Your task to perform on an android device: check google app version Image 0: 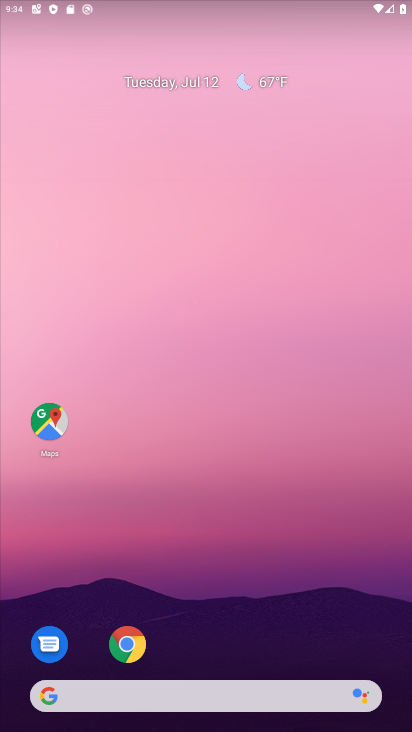
Step 0: drag from (191, 623) to (323, 155)
Your task to perform on an android device: check google app version Image 1: 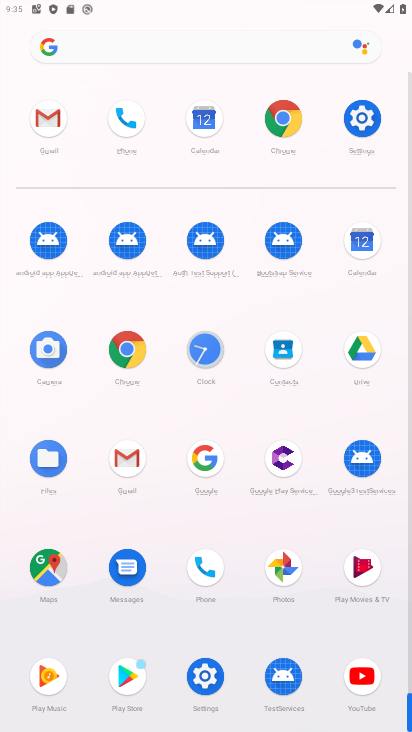
Step 1: click (209, 465)
Your task to perform on an android device: check google app version Image 2: 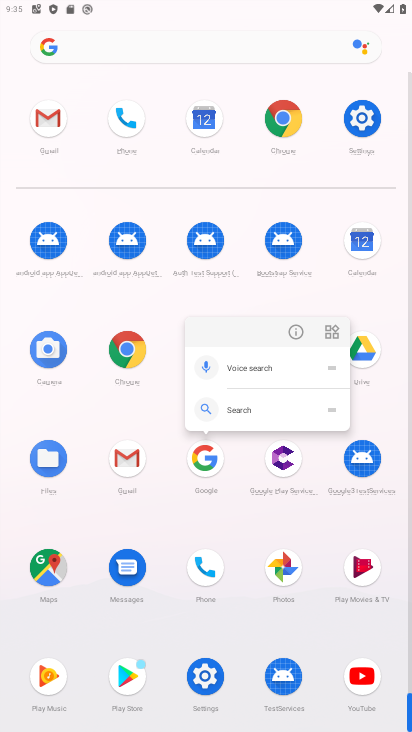
Step 2: click (295, 333)
Your task to perform on an android device: check google app version Image 3: 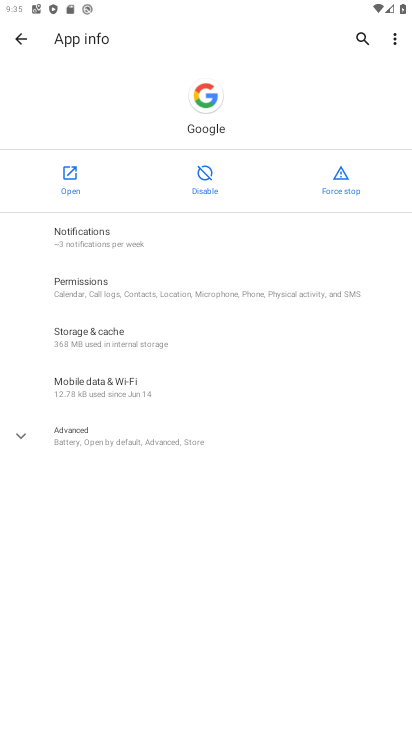
Step 3: click (72, 183)
Your task to perform on an android device: check google app version Image 4: 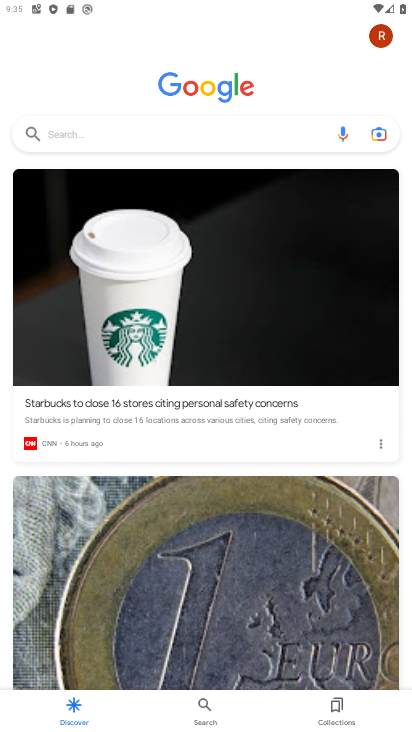
Step 4: drag from (215, 494) to (229, 205)
Your task to perform on an android device: check google app version Image 5: 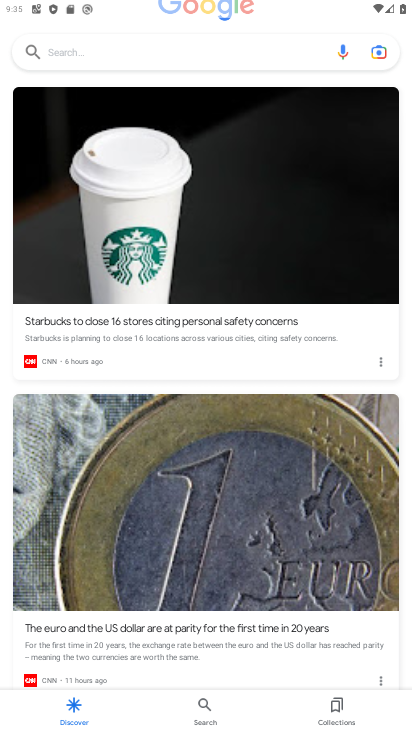
Step 5: drag from (239, 173) to (235, 543)
Your task to perform on an android device: check google app version Image 6: 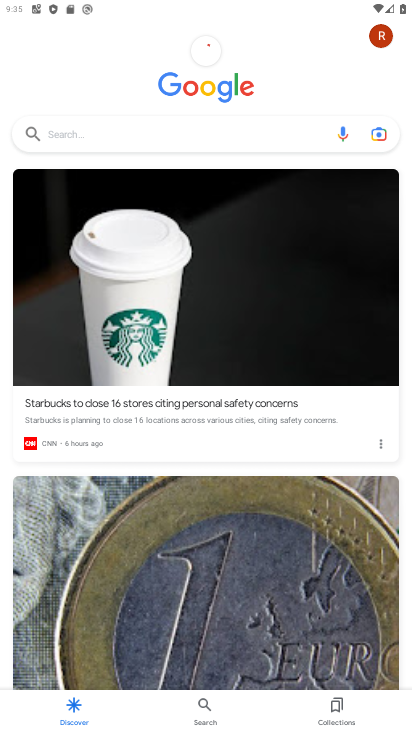
Step 6: drag from (241, 550) to (262, 314)
Your task to perform on an android device: check google app version Image 7: 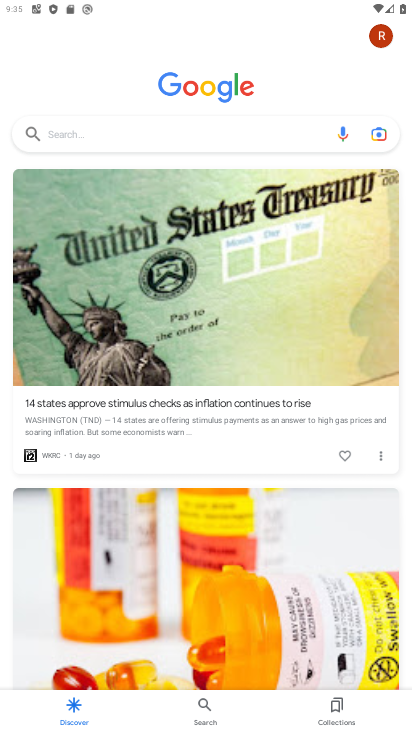
Step 7: drag from (194, 562) to (227, 277)
Your task to perform on an android device: check google app version Image 8: 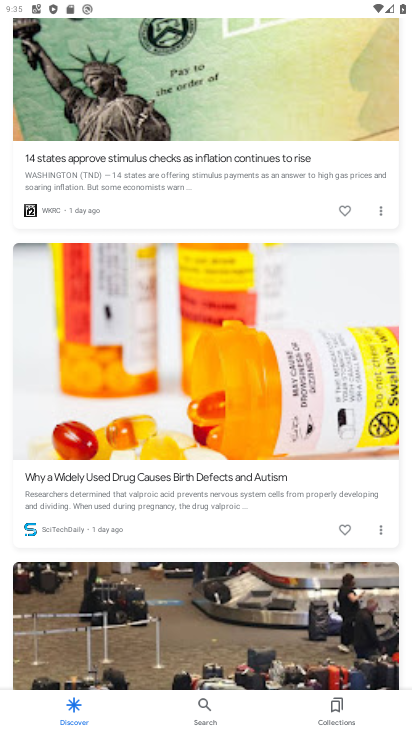
Step 8: drag from (246, 399) to (286, 145)
Your task to perform on an android device: check google app version Image 9: 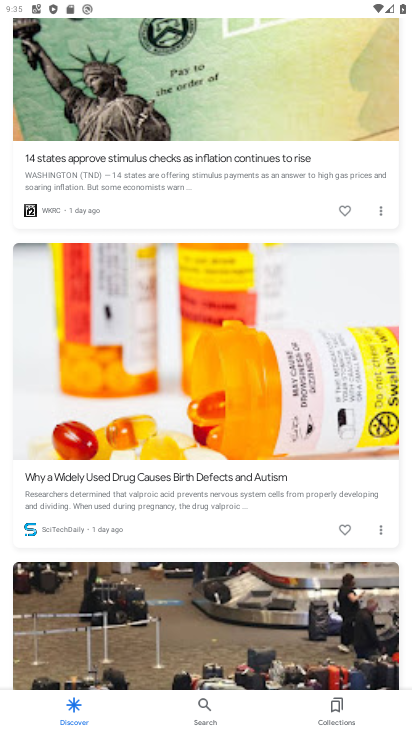
Step 9: drag from (198, 567) to (326, 137)
Your task to perform on an android device: check google app version Image 10: 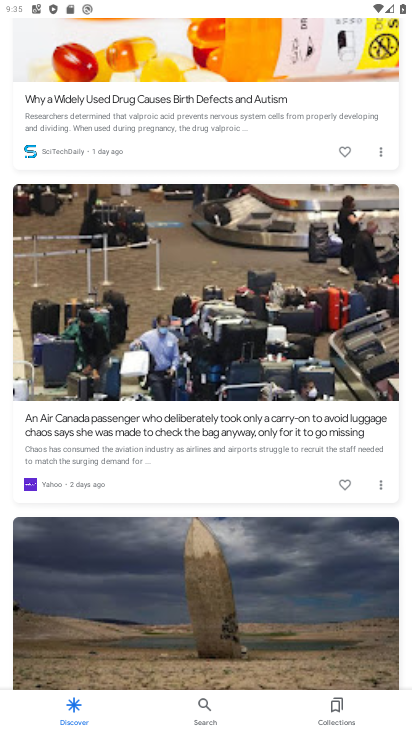
Step 10: drag from (211, 559) to (331, 100)
Your task to perform on an android device: check google app version Image 11: 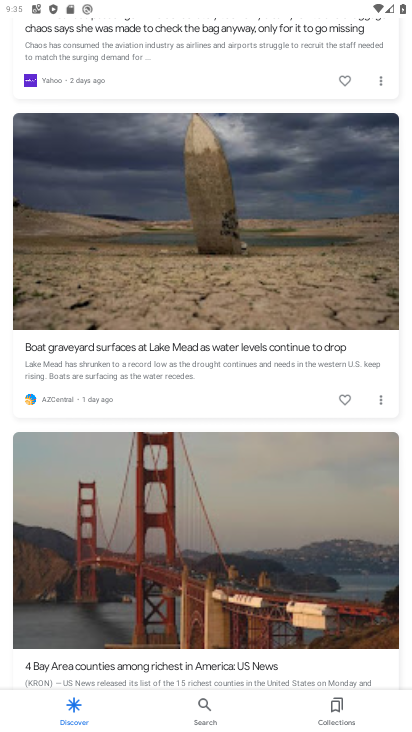
Step 11: drag from (299, 168) to (367, 730)
Your task to perform on an android device: check google app version Image 12: 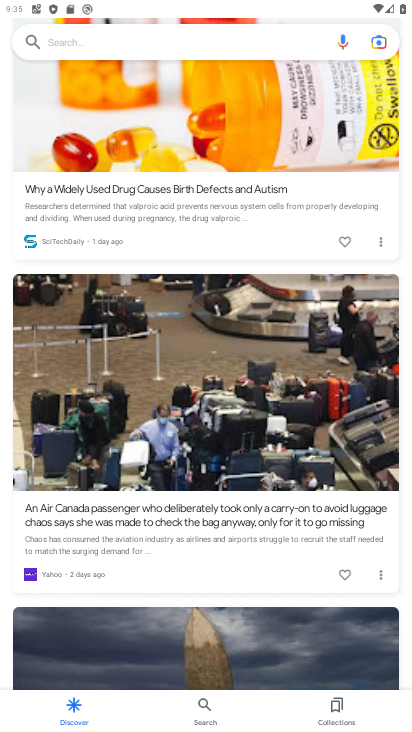
Step 12: drag from (201, 250) to (392, 715)
Your task to perform on an android device: check google app version Image 13: 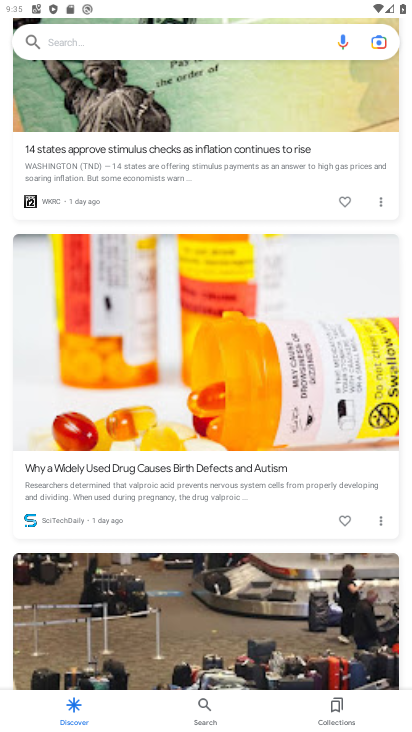
Step 13: drag from (134, 209) to (370, 676)
Your task to perform on an android device: check google app version Image 14: 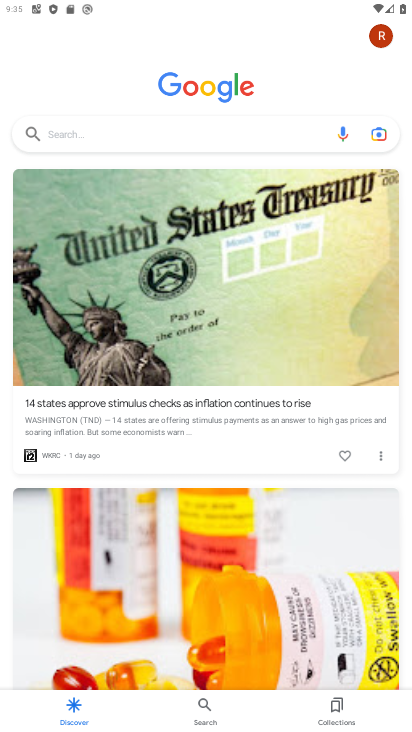
Step 14: drag from (216, 418) to (372, 154)
Your task to perform on an android device: check google app version Image 15: 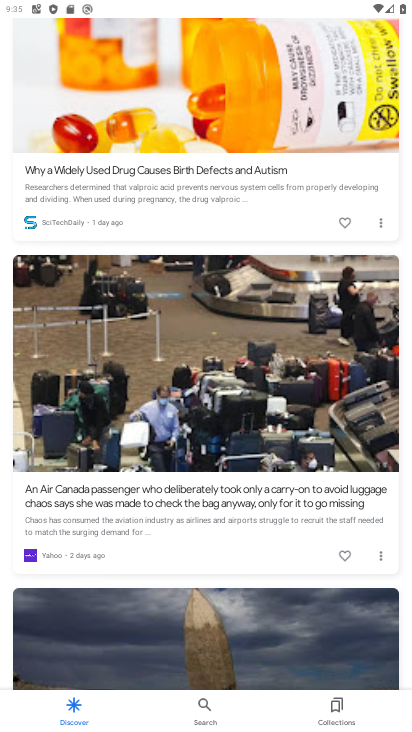
Step 15: click (373, 36)
Your task to perform on an android device: check google app version Image 16: 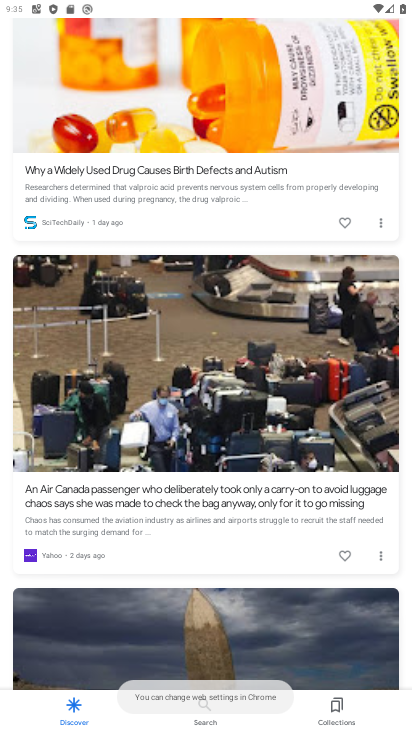
Step 16: drag from (348, 136) to (368, 587)
Your task to perform on an android device: check google app version Image 17: 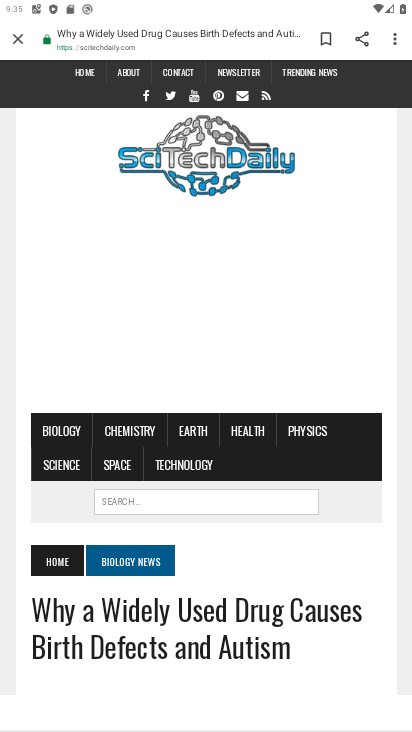
Step 17: click (22, 37)
Your task to perform on an android device: check google app version Image 18: 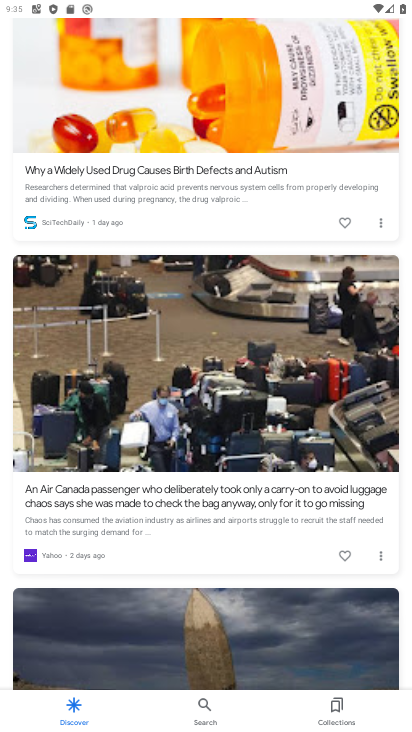
Step 18: drag from (249, 100) to (283, 561)
Your task to perform on an android device: check google app version Image 19: 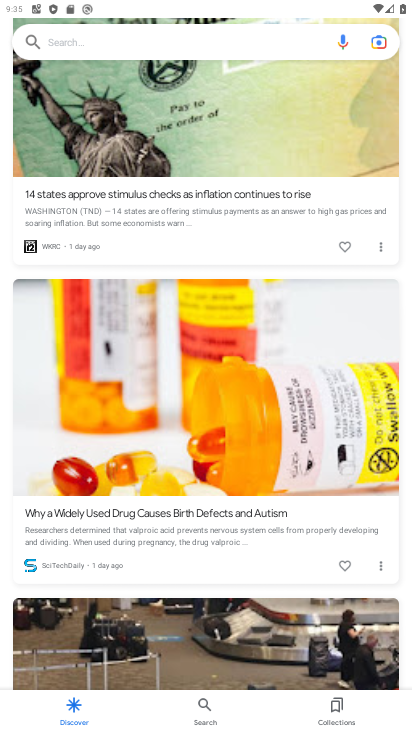
Step 19: drag from (244, 120) to (291, 635)
Your task to perform on an android device: check google app version Image 20: 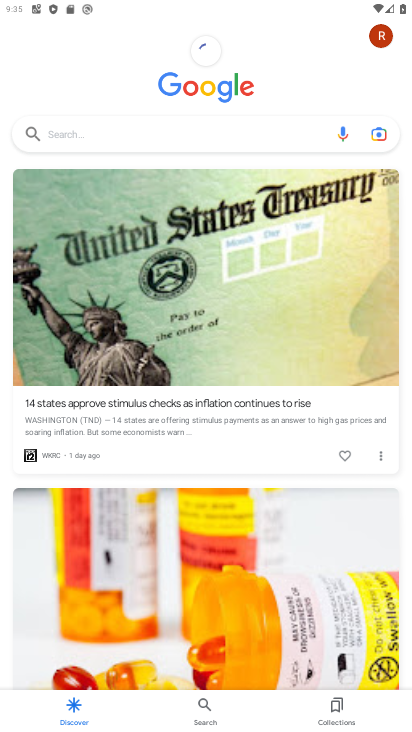
Step 20: click (388, 33)
Your task to perform on an android device: check google app version Image 21: 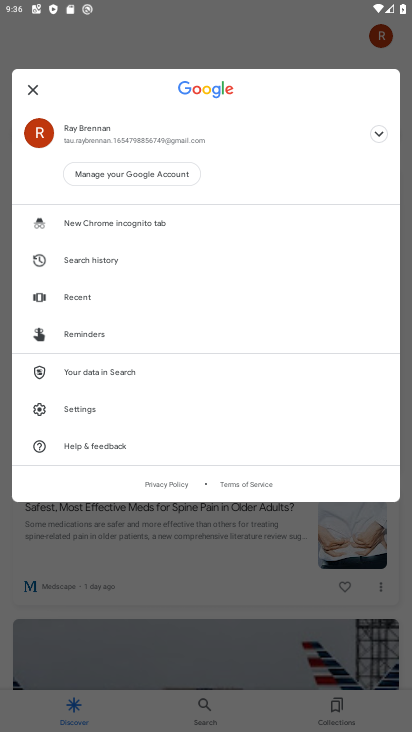
Step 21: click (79, 403)
Your task to perform on an android device: check google app version Image 22: 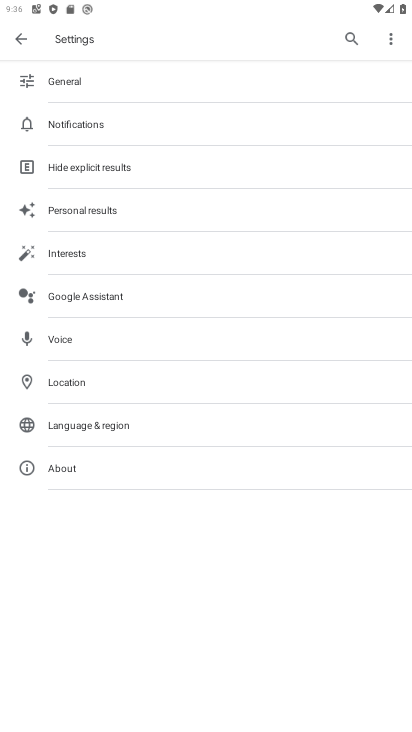
Step 22: drag from (103, 83) to (221, 611)
Your task to perform on an android device: check google app version Image 23: 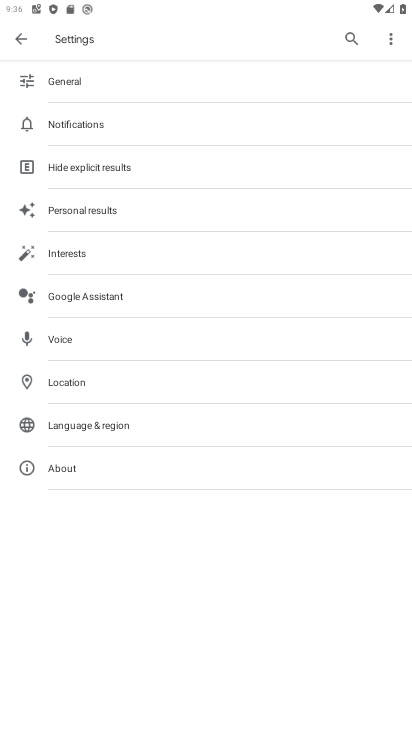
Step 23: click (147, 472)
Your task to perform on an android device: check google app version Image 24: 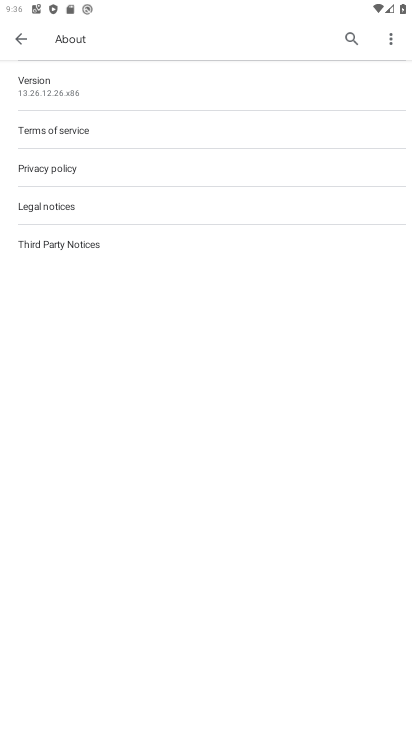
Step 24: click (96, 86)
Your task to perform on an android device: check google app version Image 25: 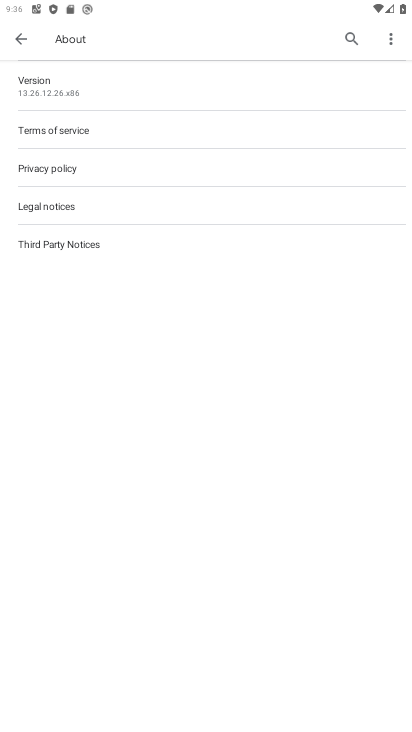
Step 25: drag from (192, 460) to (236, 60)
Your task to perform on an android device: check google app version Image 26: 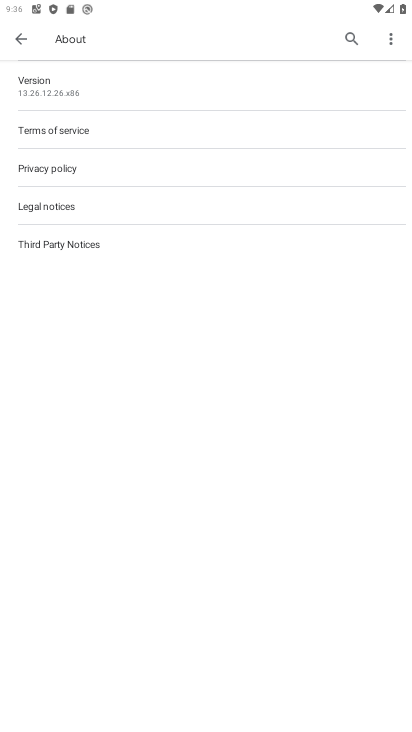
Step 26: click (105, 95)
Your task to perform on an android device: check google app version Image 27: 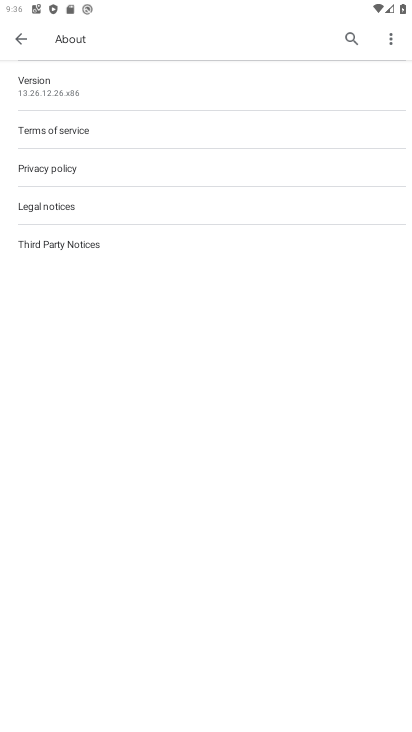
Step 27: drag from (175, 341) to (264, 48)
Your task to perform on an android device: check google app version Image 28: 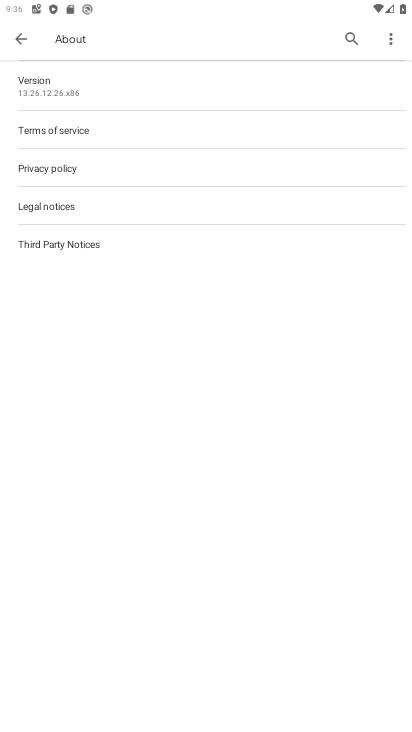
Step 28: click (93, 83)
Your task to perform on an android device: check google app version Image 29: 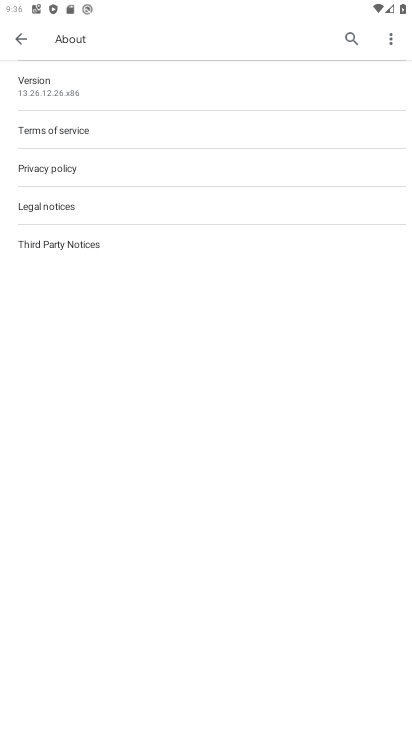
Step 29: click (93, 83)
Your task to perform on an android device: check google app version Image 30: 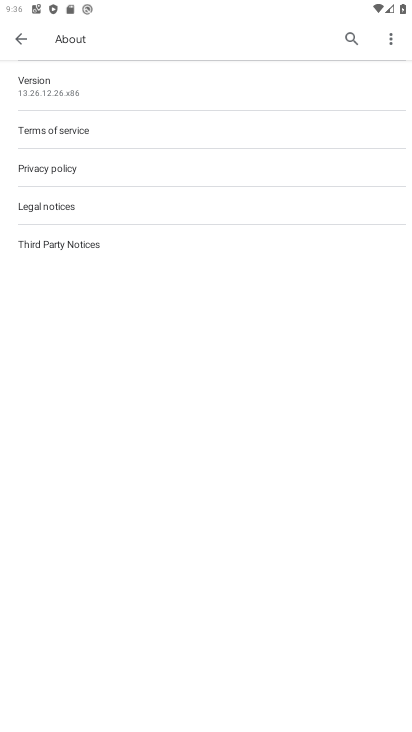
Step 30: drag from (162, 340) to (232, 52)
Your task to perform on an android device: check google app version Image 31: 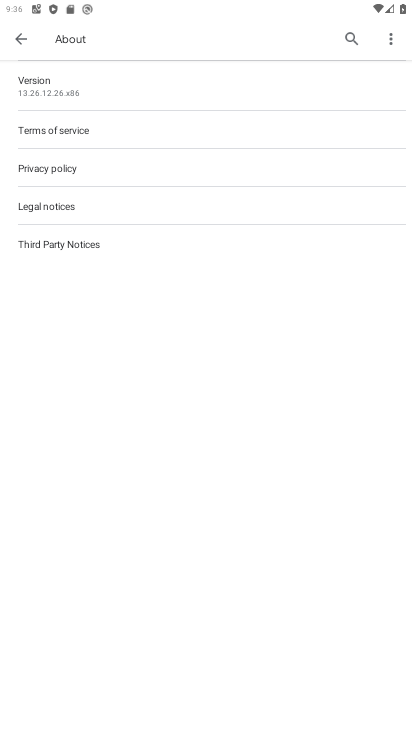
Step 31: drag from (165, 296) to (221, 181)
Your task to perform on an android device: check google app version Image 32: 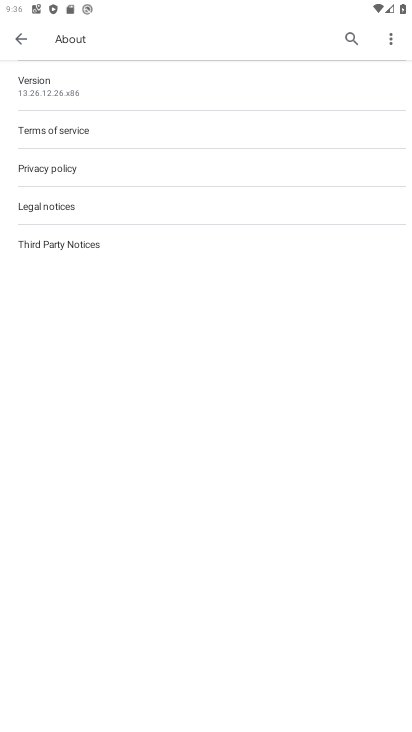
Step 32: drag from (258, 358) to (260, 176)
Your task to perform on an android device: check google app version Image 33: 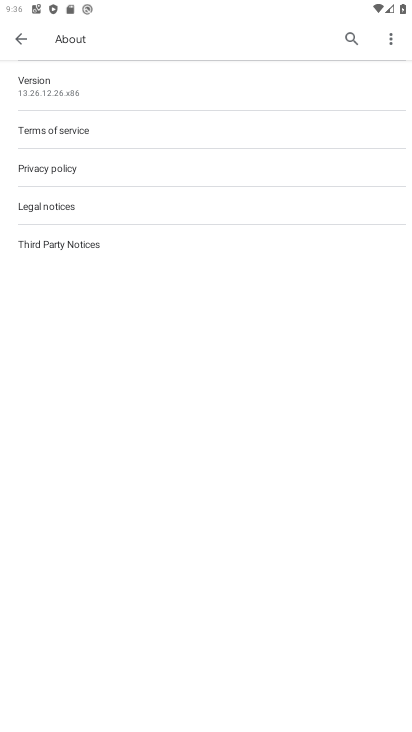
Step 33: click (135, 84)
Your task to perform on an android device: check google app version Image 34: 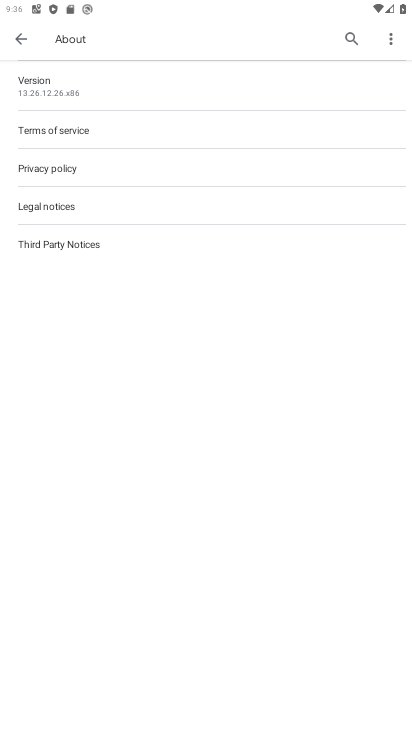
Step 34: click (120, 86)
Your task to perform on an android device: check google app version Image 35: 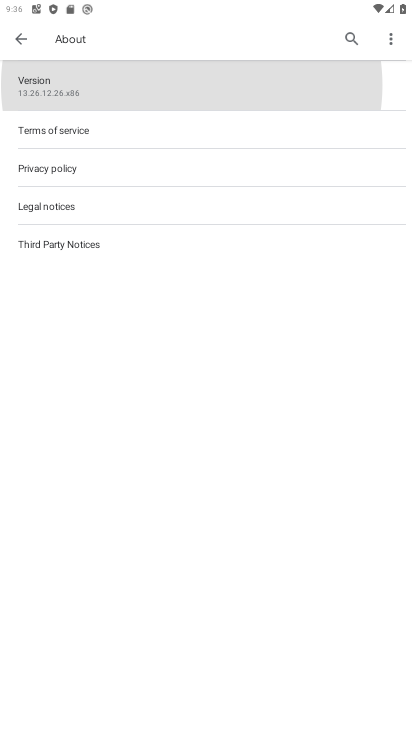
Step 35: click (120, 86)
Your task to perform on an android device: check google app version Image 36: 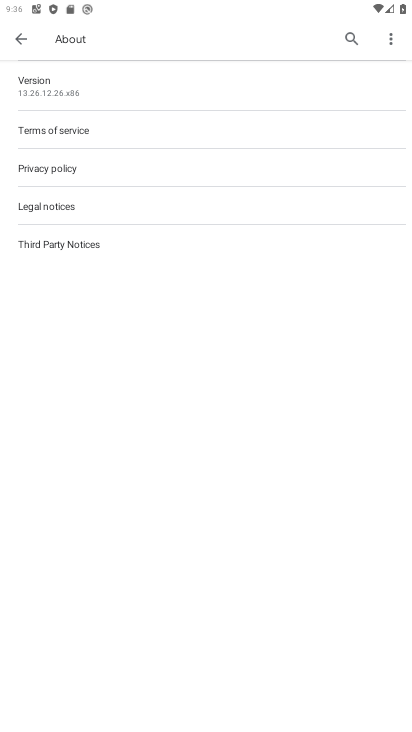
Step 36: task complete